Your task to perform on an android device: make emails show in primary in the gmail app Image 0: 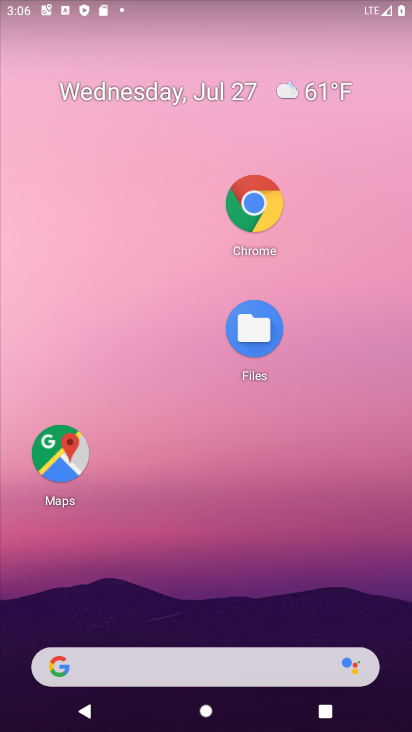
Step 0: drag from (204, 562) to (264, 81)
Your task to perform on an android device: make emails show in primary in the gmail app Image 1: 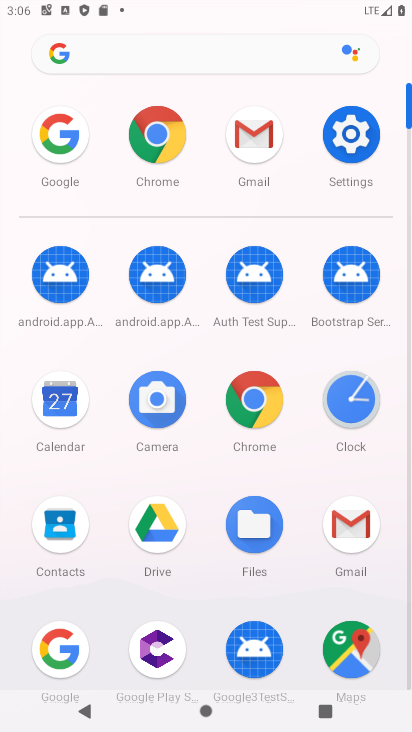
Step 1: click (248, 142)
Your task to perform on an android device: make emails show in primary in the gmail app Image 2: 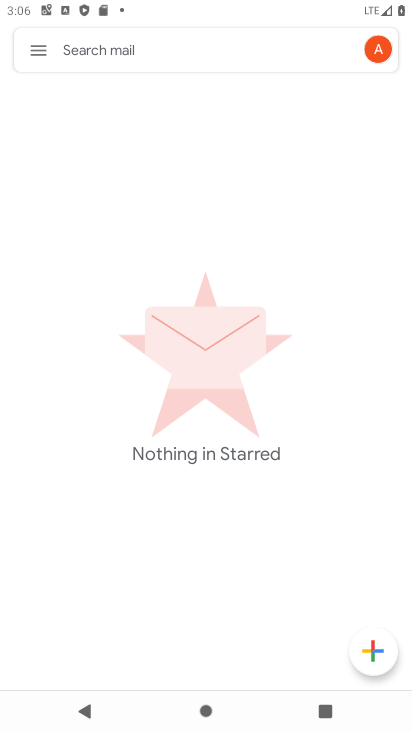
Step 2: click (44, 51)
Your task to perform on an android device: make emails show in primary in the gmail app Image 3: 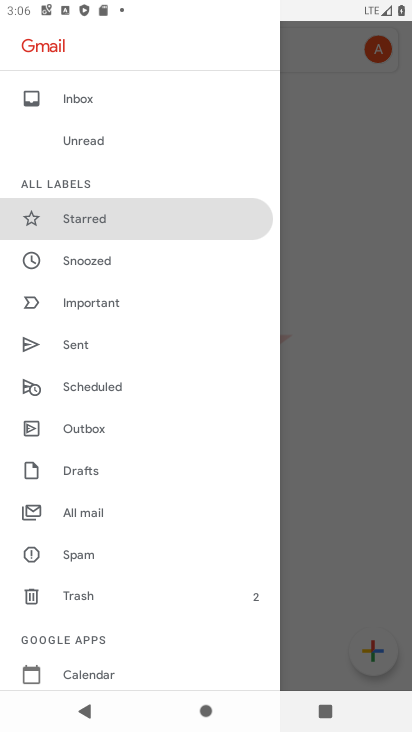
Step 3: drag from (104, 633) to (146, 357)
Your task to perform on an android device: make emails show in primary in the gmail app Image 4: 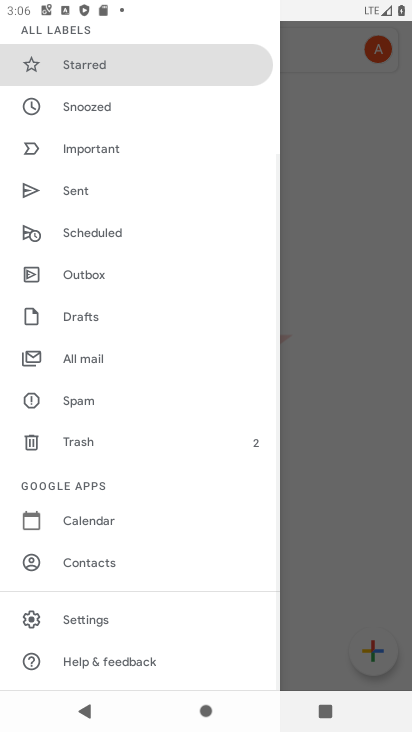
Step 4: click (72, 621)
Your task to perform on an android device: make emails show in primary in the gmail app Image 5: 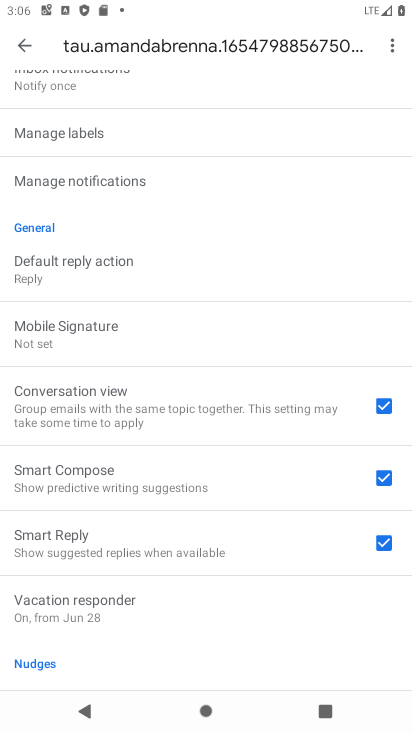
Step 5: drag from (144, 269) to (136, 537)
Your task to perform on an android device: make emails show in primary in the gmail app Image 6: 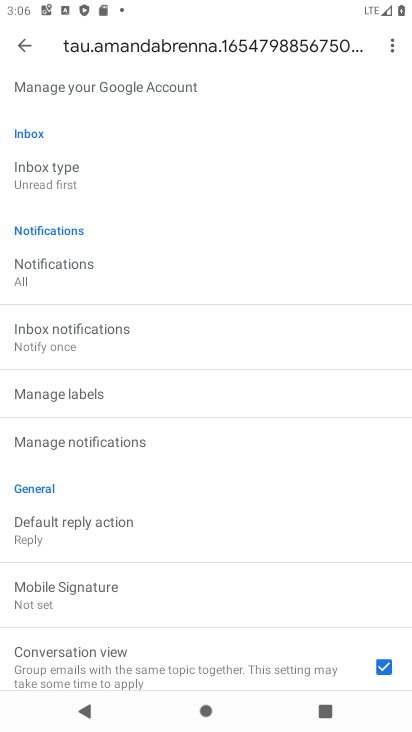
Step 6: click (99, 188)
Your task to perform on an android device: make emails show in primary in the gmail app Image 7: 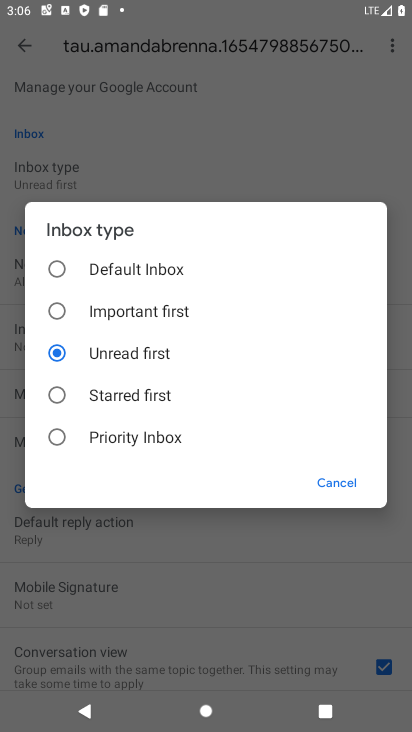
Step 7: click (104, 276)
Your task to perform on an android device: make emails show in primary in the gmail app Image 8: 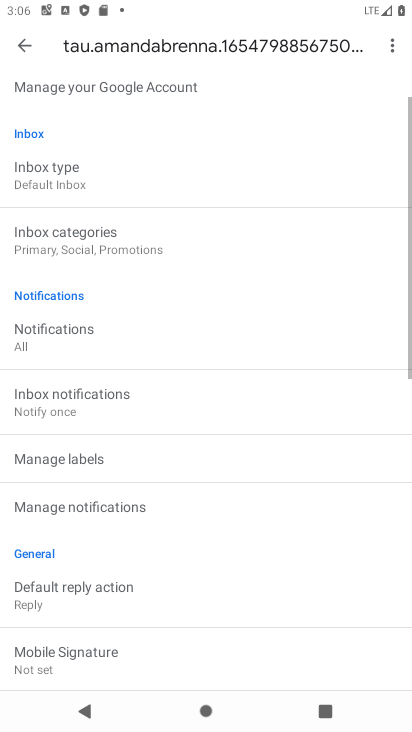
Step 8: task complete